Your task to perform on an android device: turn off location Image 0: 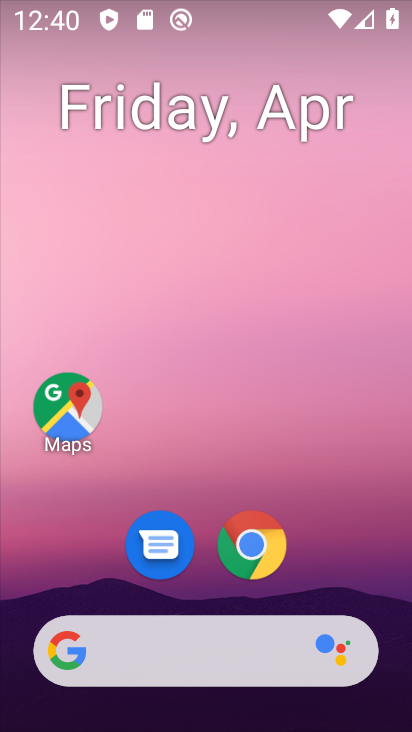
Step 0: drag from (307, 577) to (290, 24)
Your task to perform on an android device: turn off location Image 1: 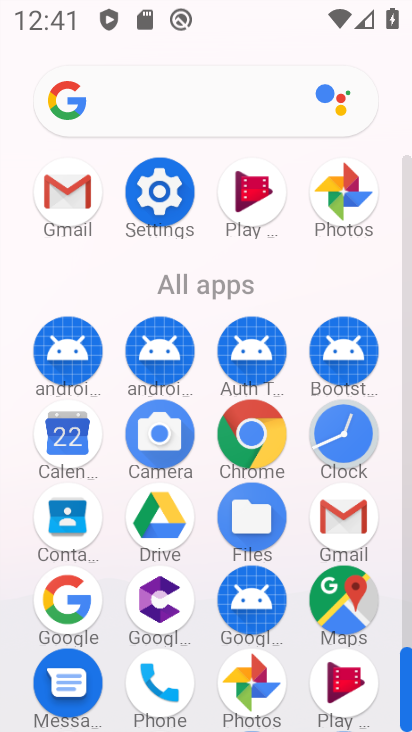
Step 1: click (167, 188)
Your task to perform on an android device: turn off location Image 2: 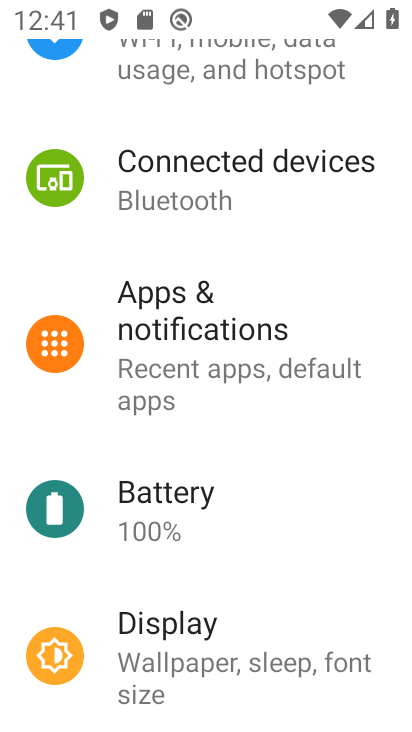
Step 2: drag from (283, 558) to (278, 297)
Your task to perform on an android device: turn off location Image 3: 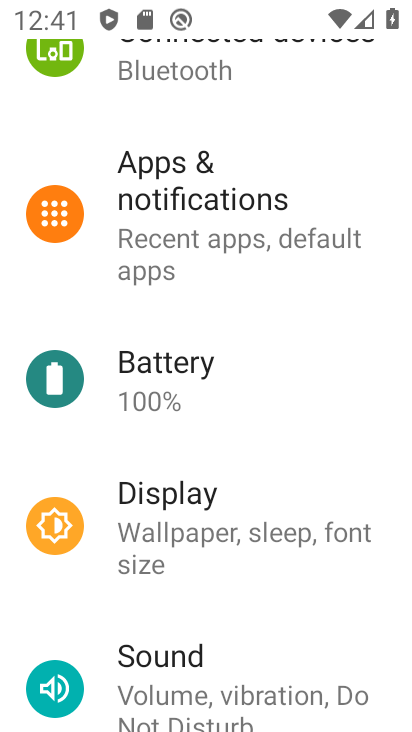
Step 3: drag from (261, 612) to (261, 296)
Your task to perform on an android device: turn off location Image 4: 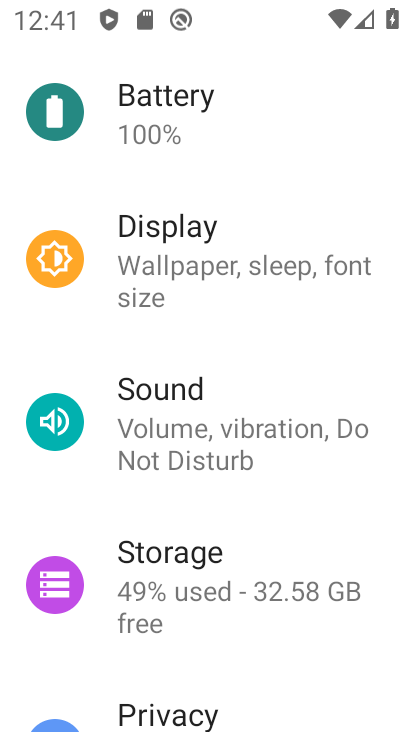
Step 4: drag from (268, 638) to (270, 237)
Your task to perform on an android device: turn off location Image 5: 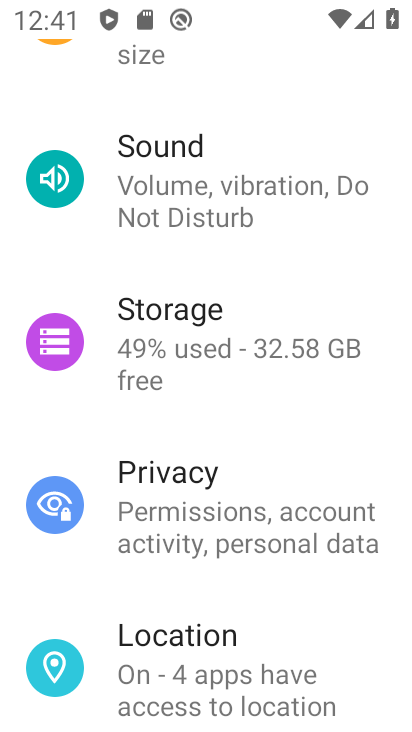
Step 5: click (235, 647)
Your task to perform on an android device: turn off location Image 6: 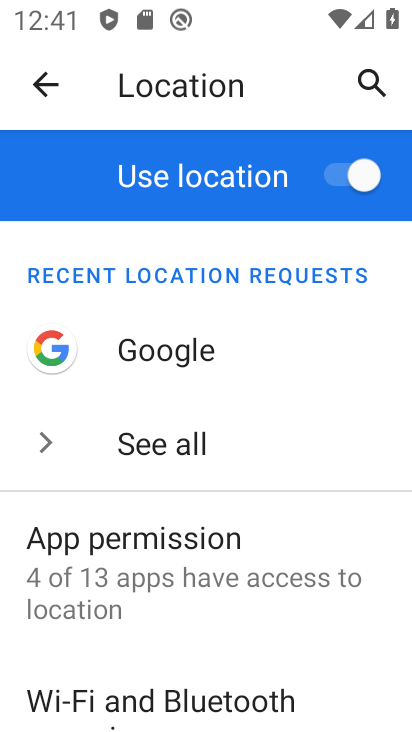
Step 6: click (339, 166)
Your task to perform on an android device: turn off location Image 7: 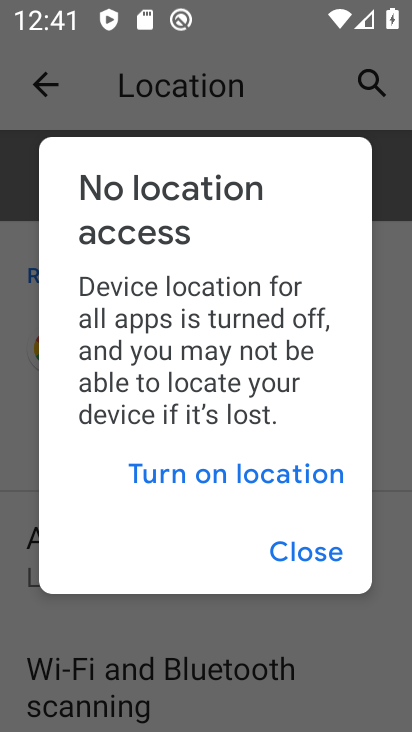
Step 7: click (280, 551)
Your task to perform on an android device: turn off location Image 8: 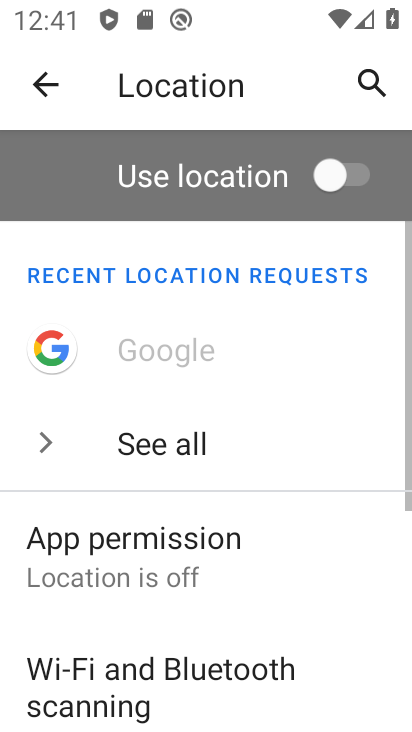
Step 8: task complete